Your task to perform on an android device: Open settings Image 0: 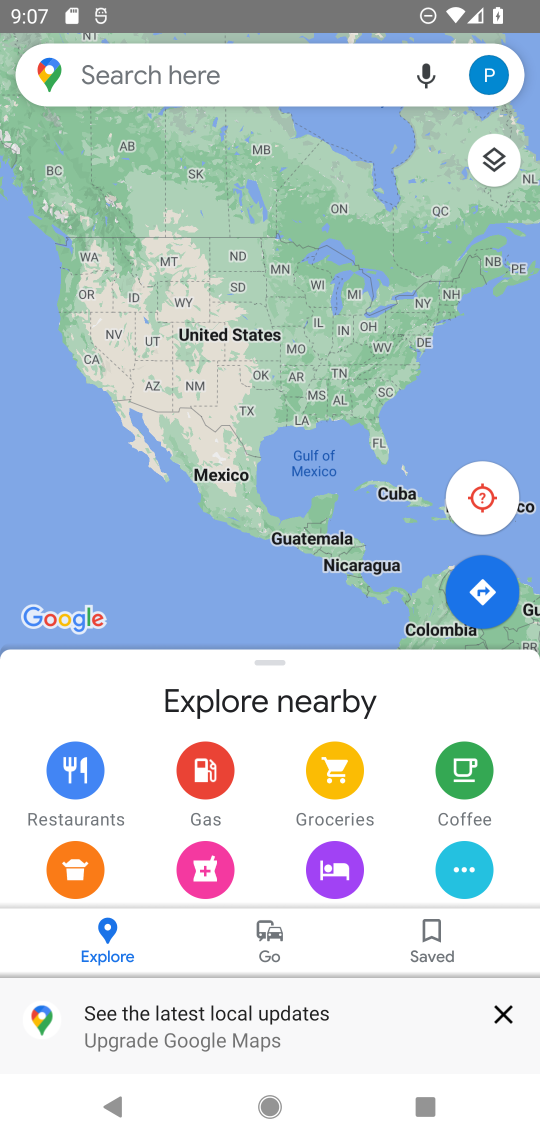
Step 0: press home button
Your task to perform on an android device: Open settings Image 1: 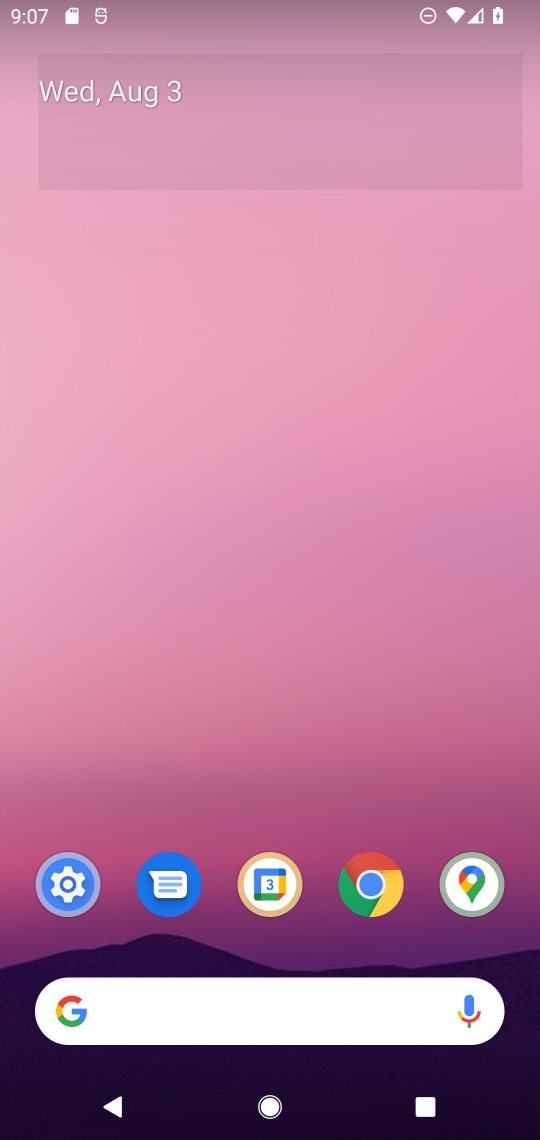
Step 1: drag from (133, 703) to (326, 179)
Your task to perform on an android device: Open settings Image 2: 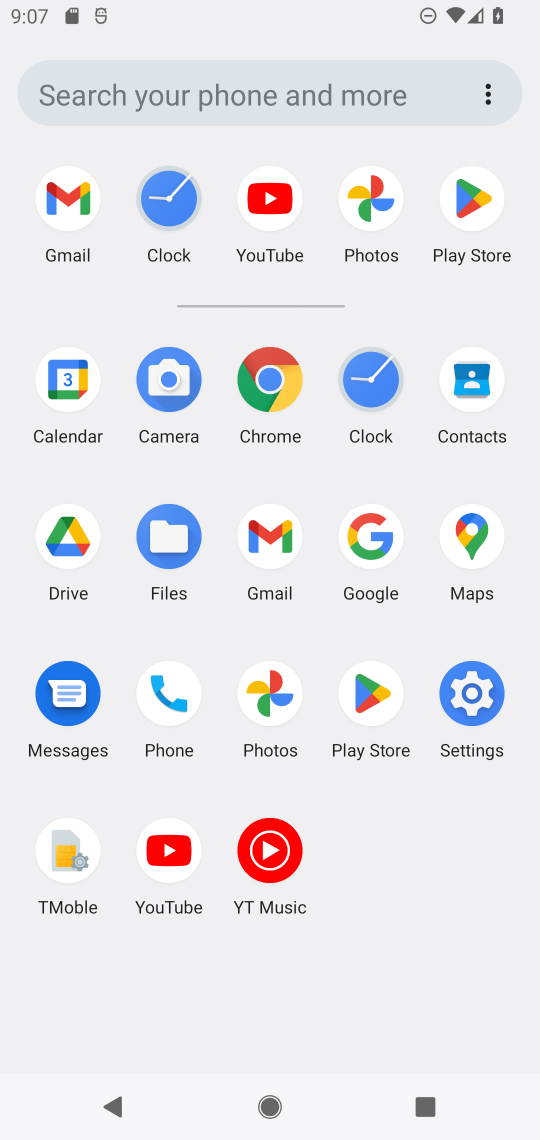
Step 2: click (467, 716)
Your task to perform on an android device: Open settings Image 3: 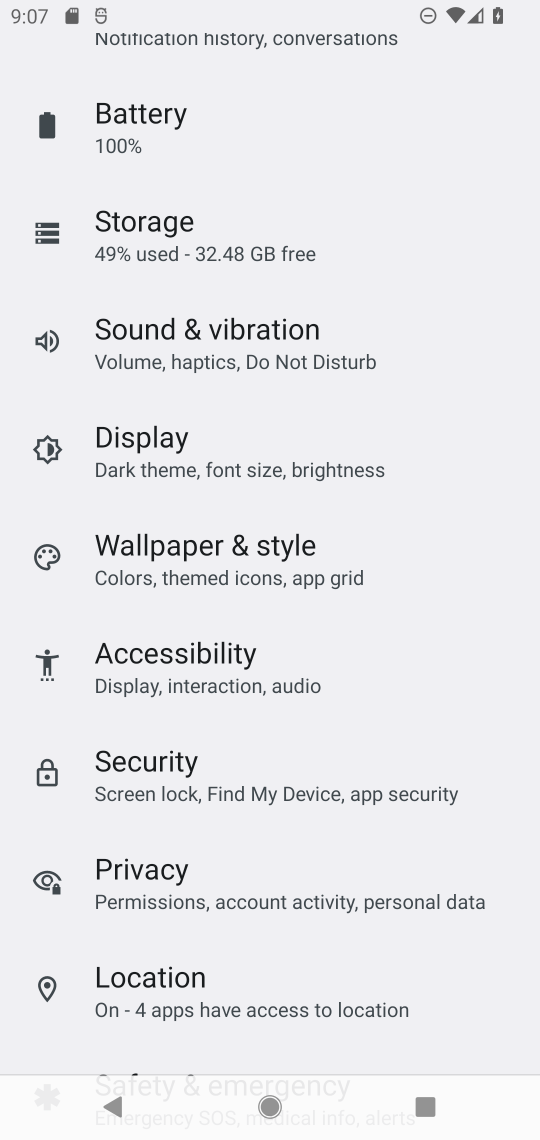
Step 3: task complete